Your task to perform on an android device: snooze an email in the gmail app Image 0: 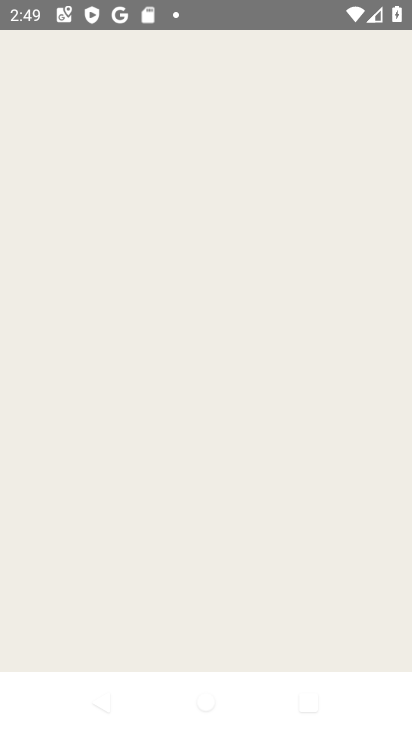
Step 0: drag from (213, 545) to (388, 174)
Your task to perform on an android device: snooze an email in the gmail app Image 1: 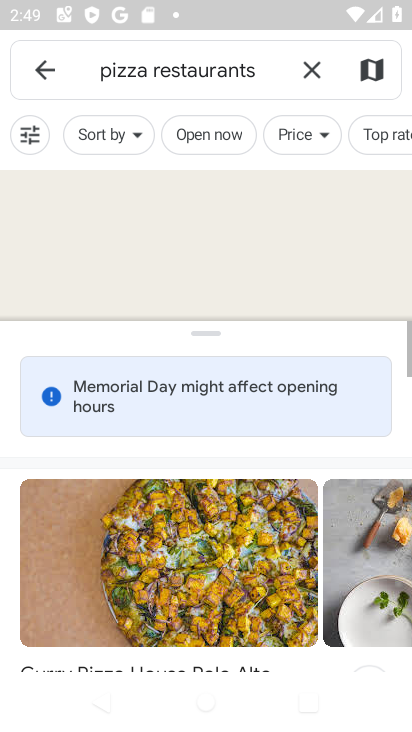
Step 1: press home button
Your task to perform on an android device: snooze an email in the gmail app Image 2: 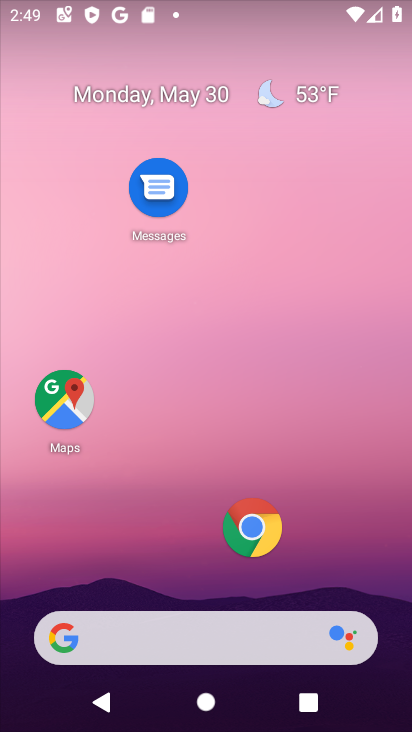
Step 2: drag from (220, 550) to (374, 162)
Your task to perform on an android device: snooze an email in the gmail app Image 3: 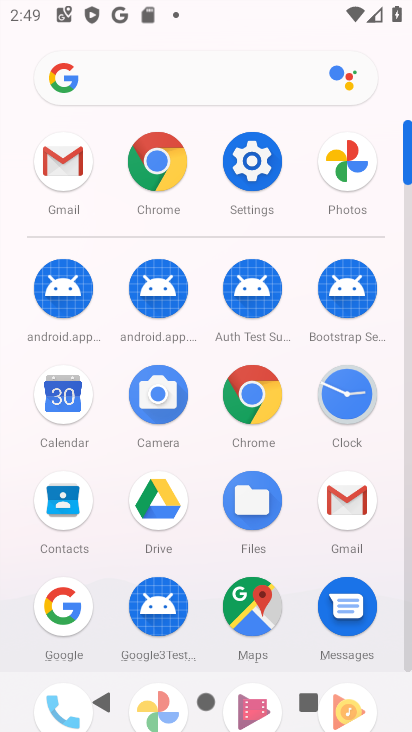
Step 3: click (352, 518)
Your task to perform on an android device: snooze an email in the gmail app Image 4: 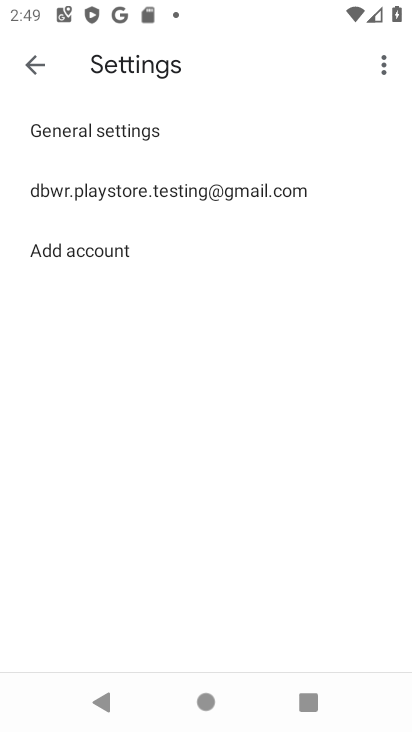
Step 4: press back button
Your task to perform on an android device: snooze an email in the gmail app Image 5: 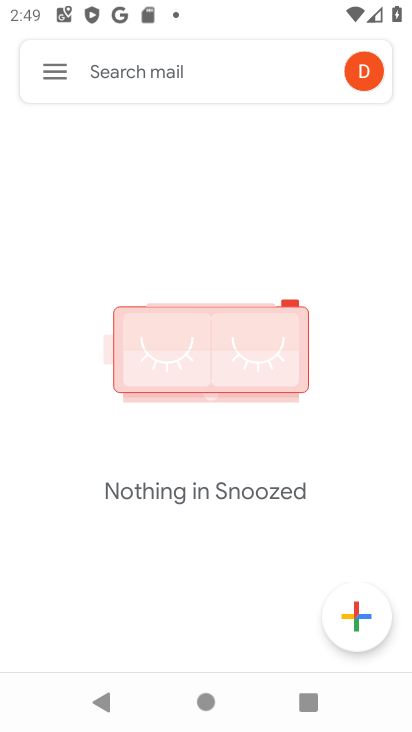
Step 5: click (50, 73)
Your task to perform on an android device: snooze an email in the gmail app Image 6: 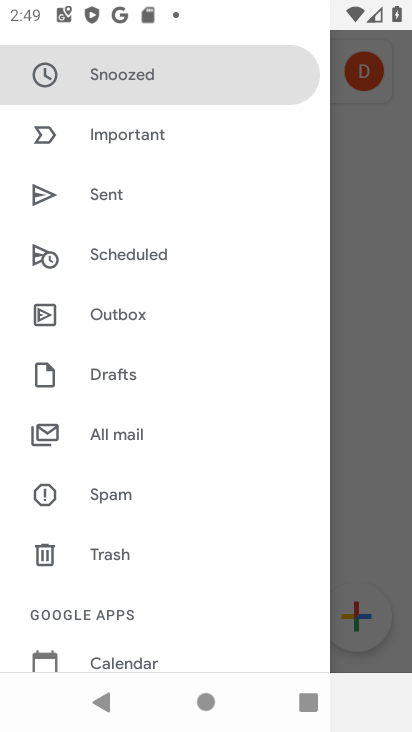
Step 6: click (159, 438)
Your task to perform on an android device: snooze an email in the gmail app Image 7: 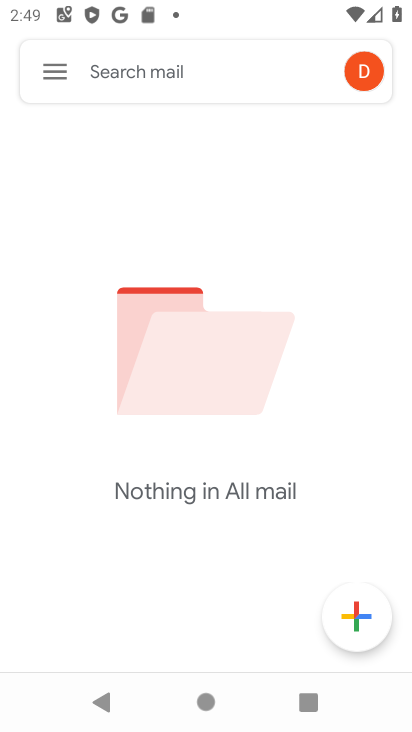
Step 7: task complete